Your task to perform on an android device: uninstall "TextNow: Call + Text Unlimited" Image 0: 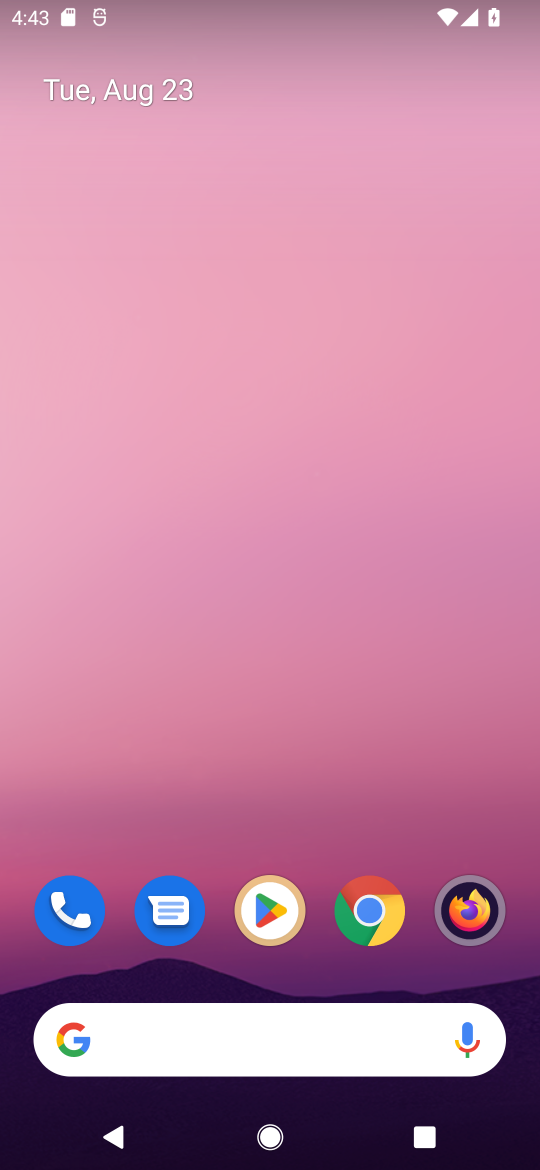
Step 0: drag from (248, 1006) to (179, 177)
Your task to perform on an android device: uninstall "TextNow: Call + Text Unlimited" Image 1: 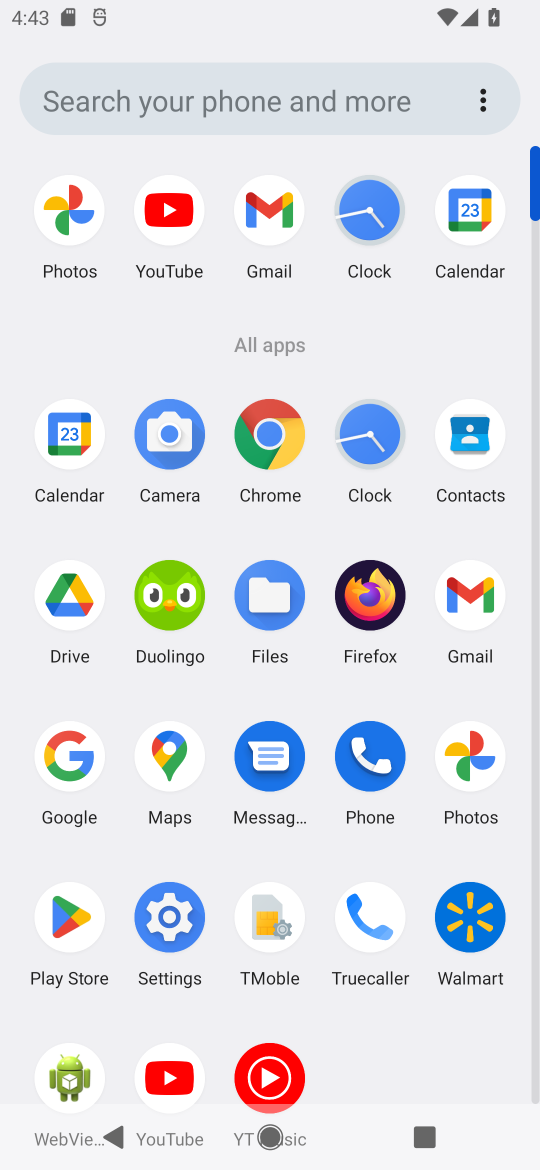
Step 1: click (54, 911)
Your task to perform on an android device: uninstall "TextNow: Call + Text Unlimited" Image 2: 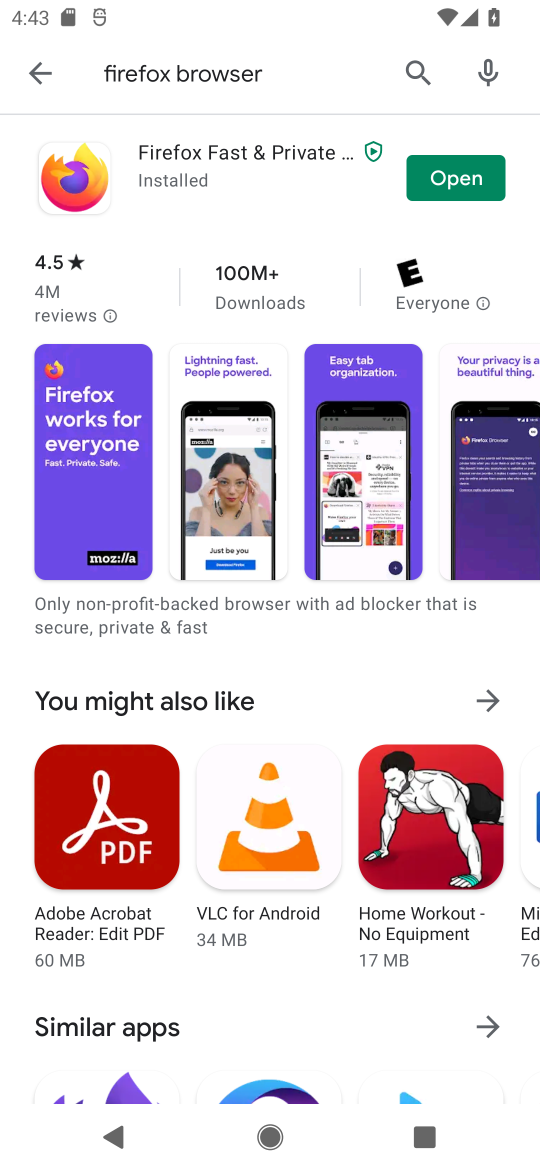
Step 2: click (414, 67)
Your task to perform on an android device: uninstall "TextNow: Call + Text Unlimited" Image 3: 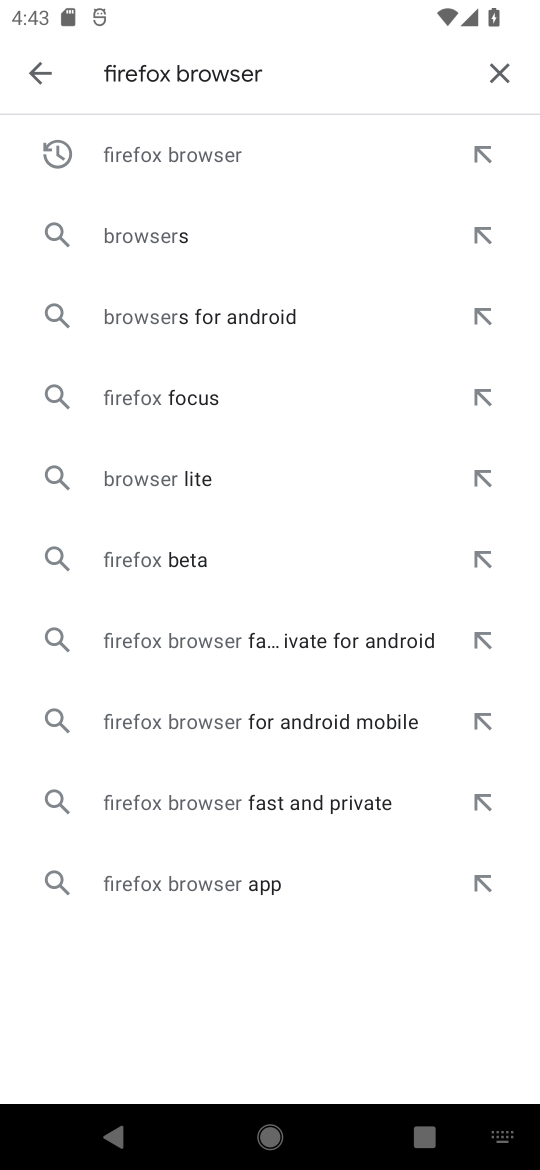
Step 3: click (486, 79)
Your task to perform on an android device: uninstall "TextNow: Call + Text Unlimited" Image 4: 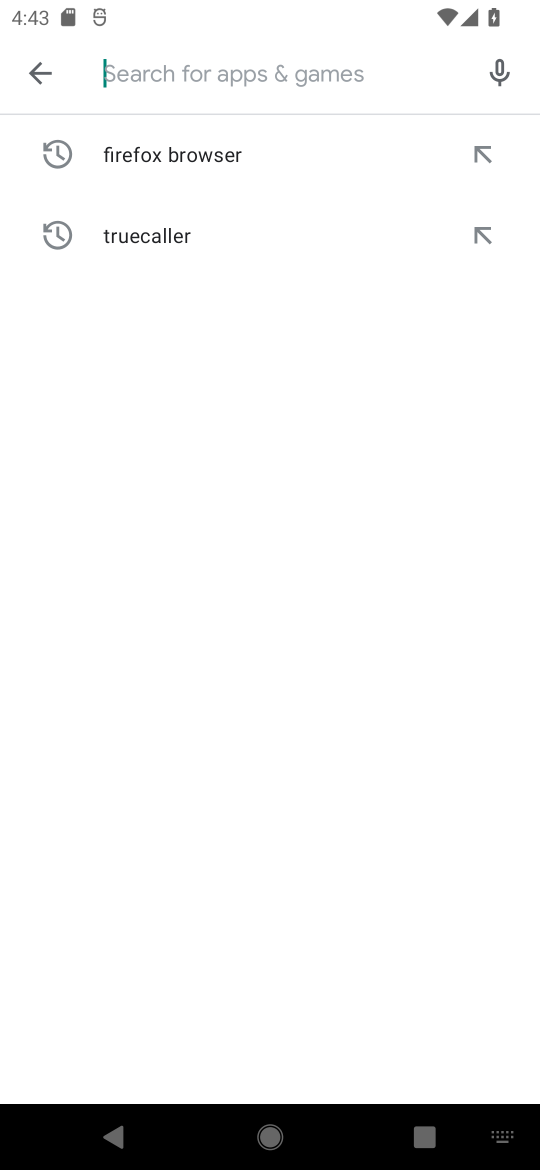
Step 4: type "TextNow: Call + Text Unlimited"
Your task to perform on an android device: uninstall "TextNow: Call + Text Unlimited" Image 5: 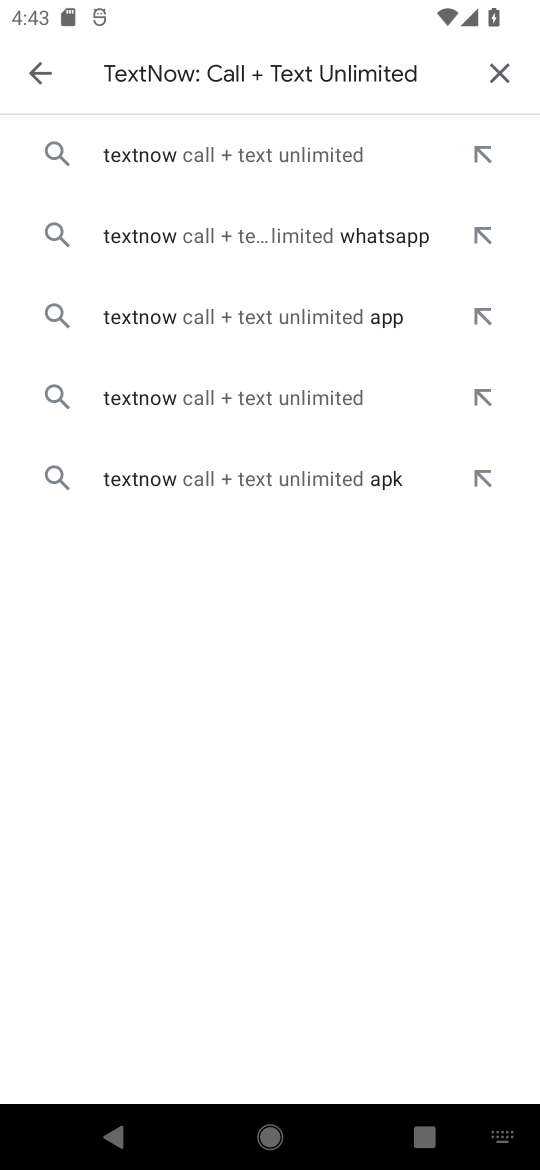
Step 5: click (199, 153)
Your task to perform on an android device: uninstall "TextNow: Call + Text Unlimited" Image 6: 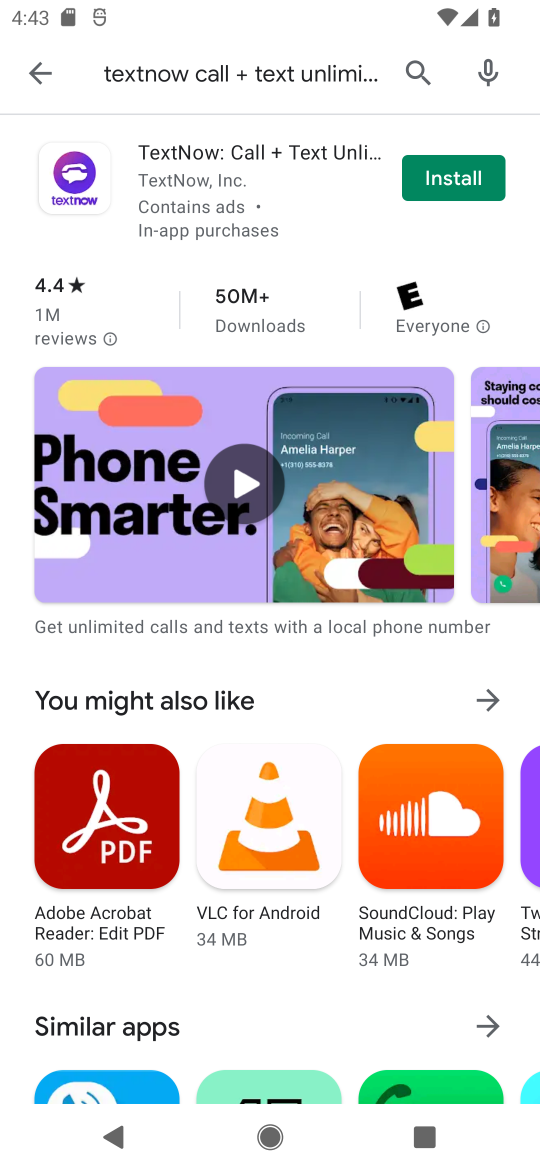
Step 6: task complete